Your task to perform on an android device: What's the weather? Image 0: 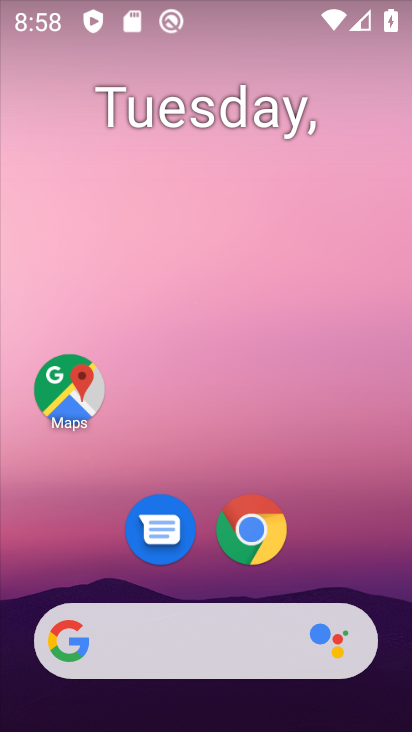
Step 0: drag from (294, 593) to (322, 144)
Your task to perform on an android device: What's the weather? Image 1: 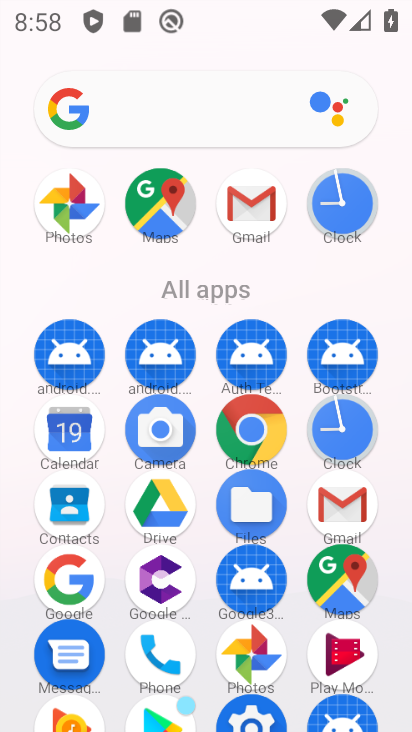
Step 1: click (258, 450)
Your task to perform on an android device: What's the weather? Image 2: 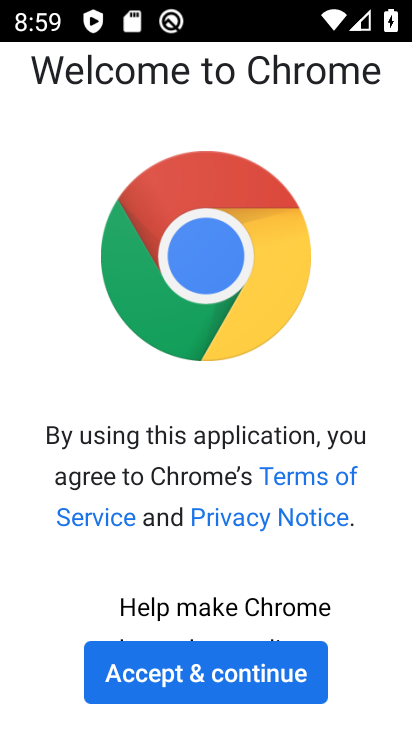
Step 2: click (226, 653)
Your task to perform on an android device: What's the weather? Image 3: 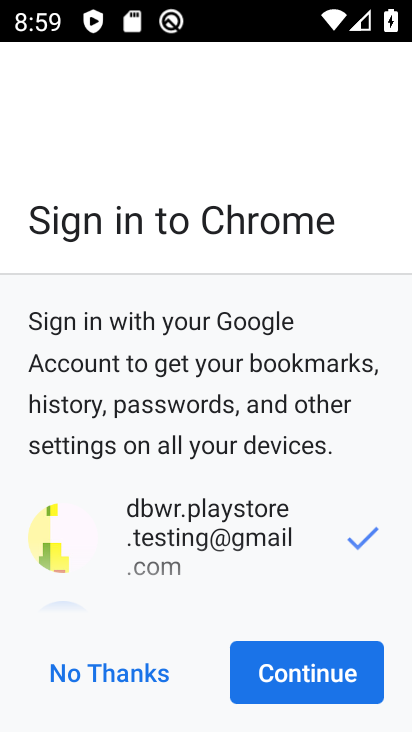
Step 3: click (144, 672)
Your task to perform on an android device: What's the weather? Image 4: 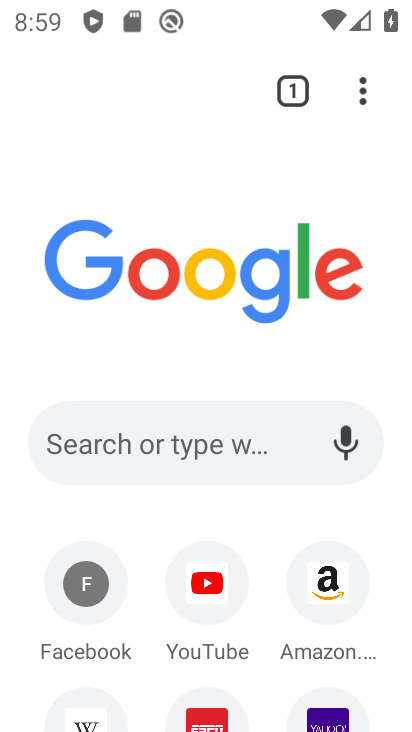
Step 4: drag from (261, 643) to (273, 114)
Your task to perform on an android device: What's the weather? Image 5: 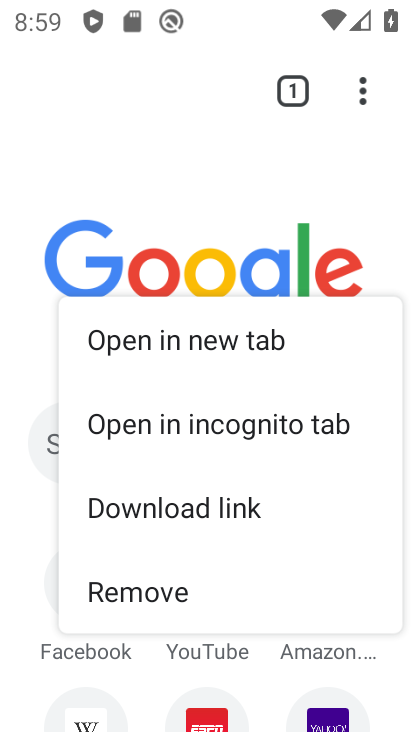
Step 5: click (292, 166)
Your task to perform on an android device: What's the weather? Image 6: 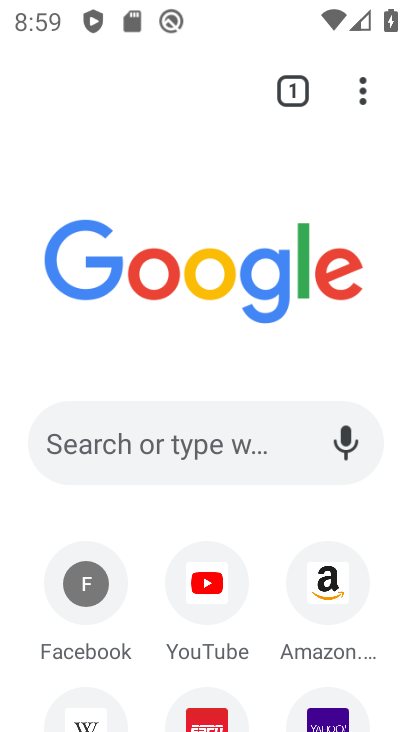
Step 6: click (248, 467)
Your task to perform on an android device: What's the weather? Image 7: 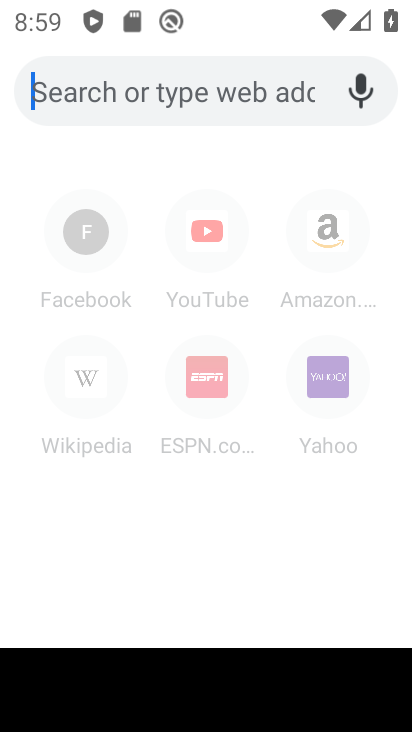
Step 7: type "weather"
Your task to perform on an android device: What's the weather? Image 8: 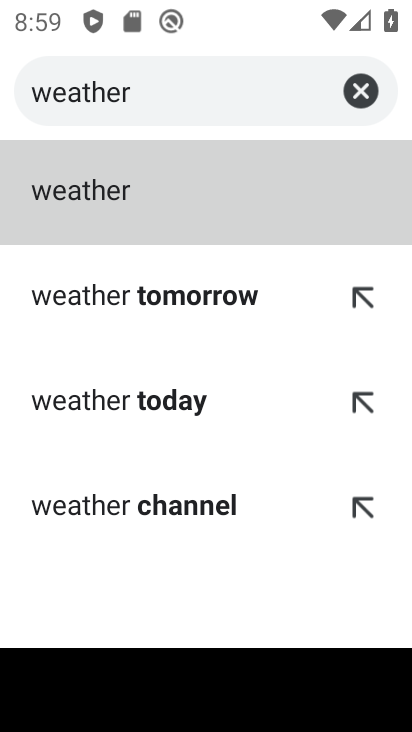
Step 8: click (180, 231)
Your task to perform on an android device: What's the weather? Image 9: 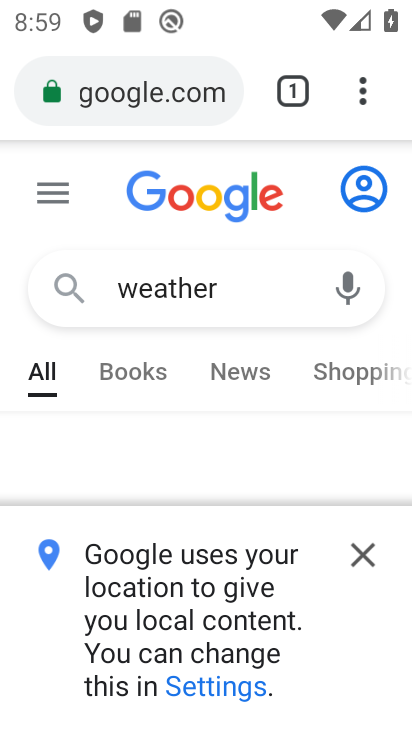
Step 9: click (361, 558)
Your task to perform on an android device: What's the weather? Image 10: 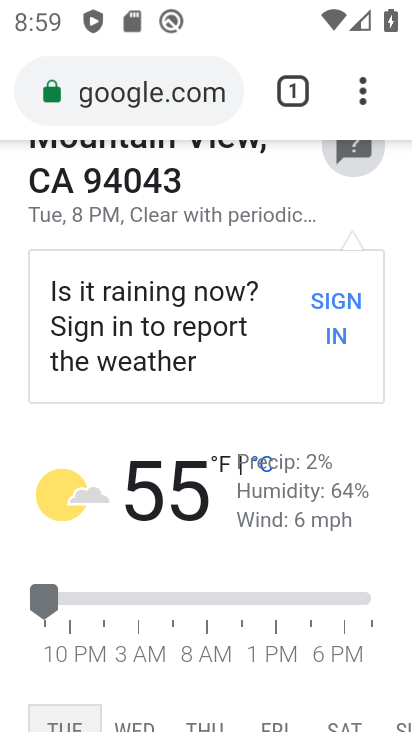
Step 10: task complete